Your task to perform on an android device: Search for a 24-inch cordless drill. Image 0: 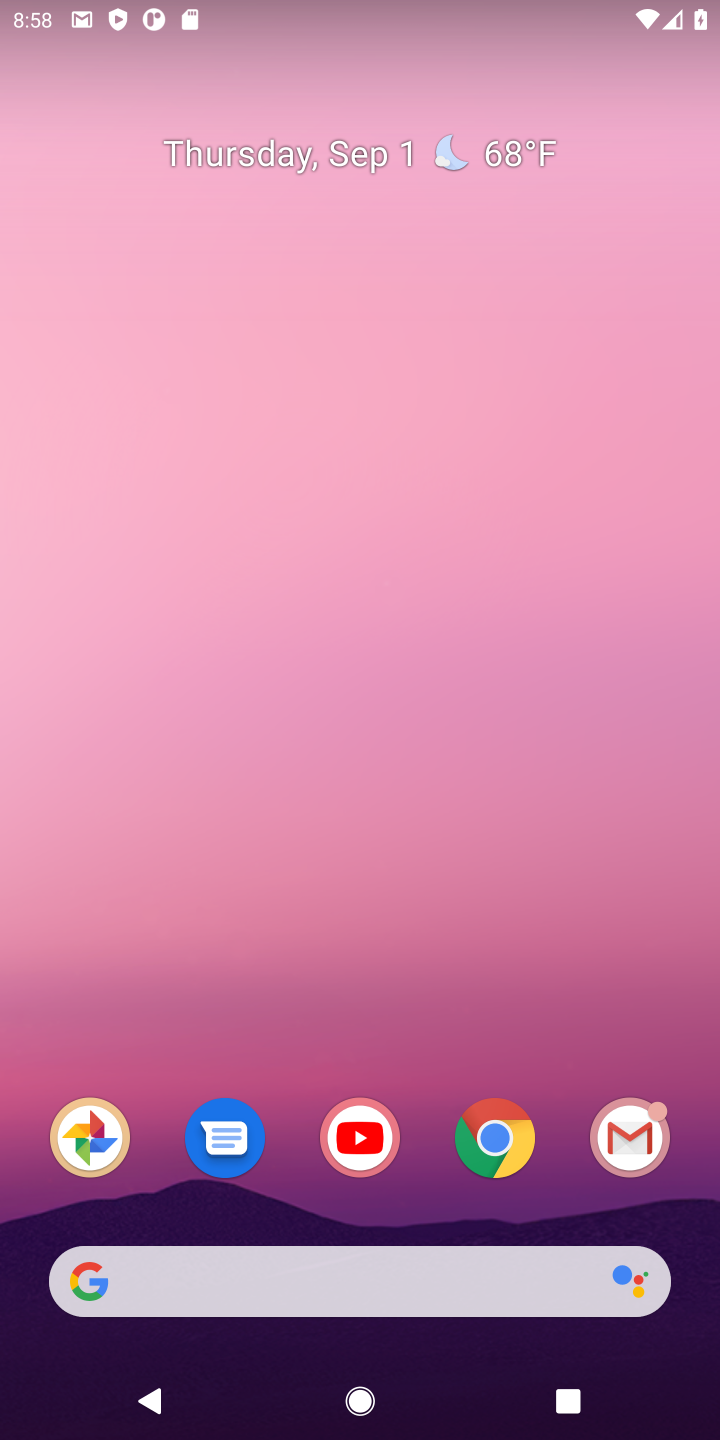
Step 0: click (498, 1178)
Your task to perform on an android device: Search for a 24-inch cordless drill. Image 1: 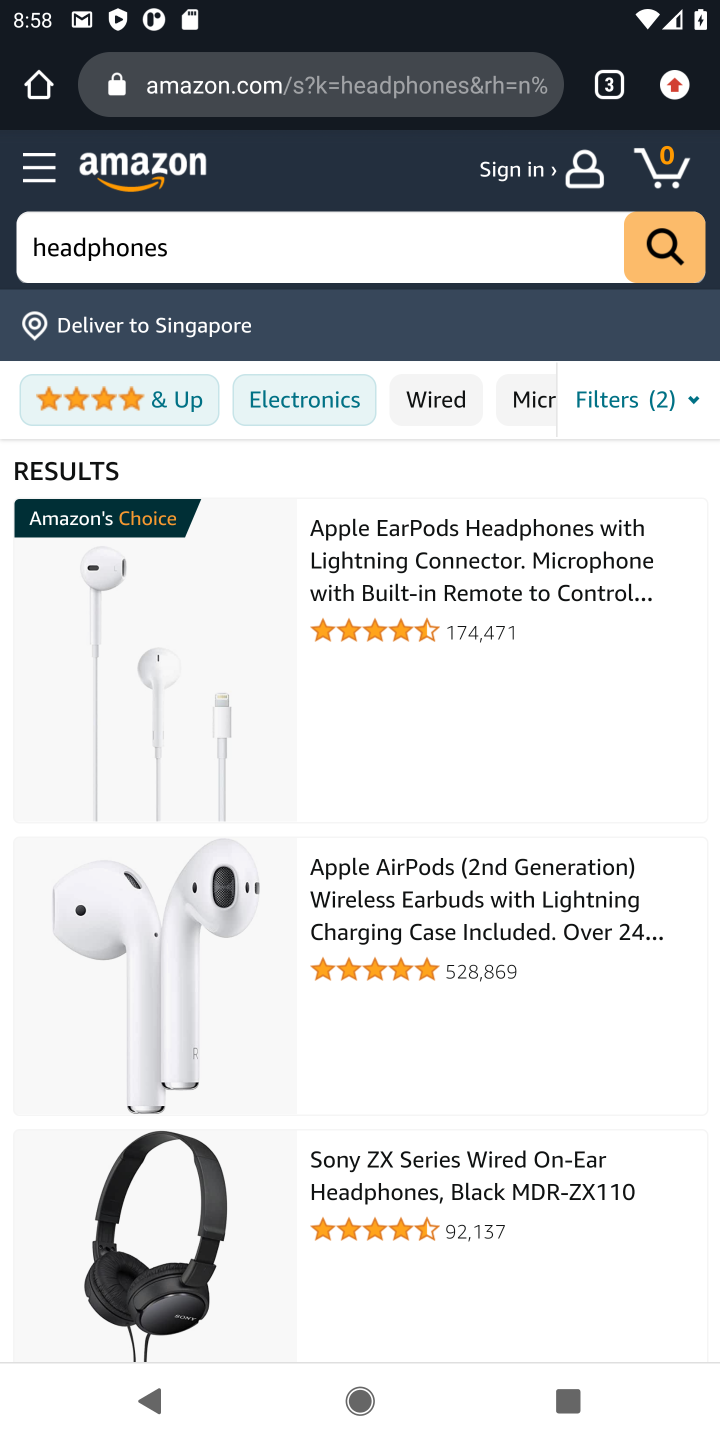
Step 1: click (608, 83)
Your task to perform on an android device: Search for a 24-inch cordless drill. Image 2: 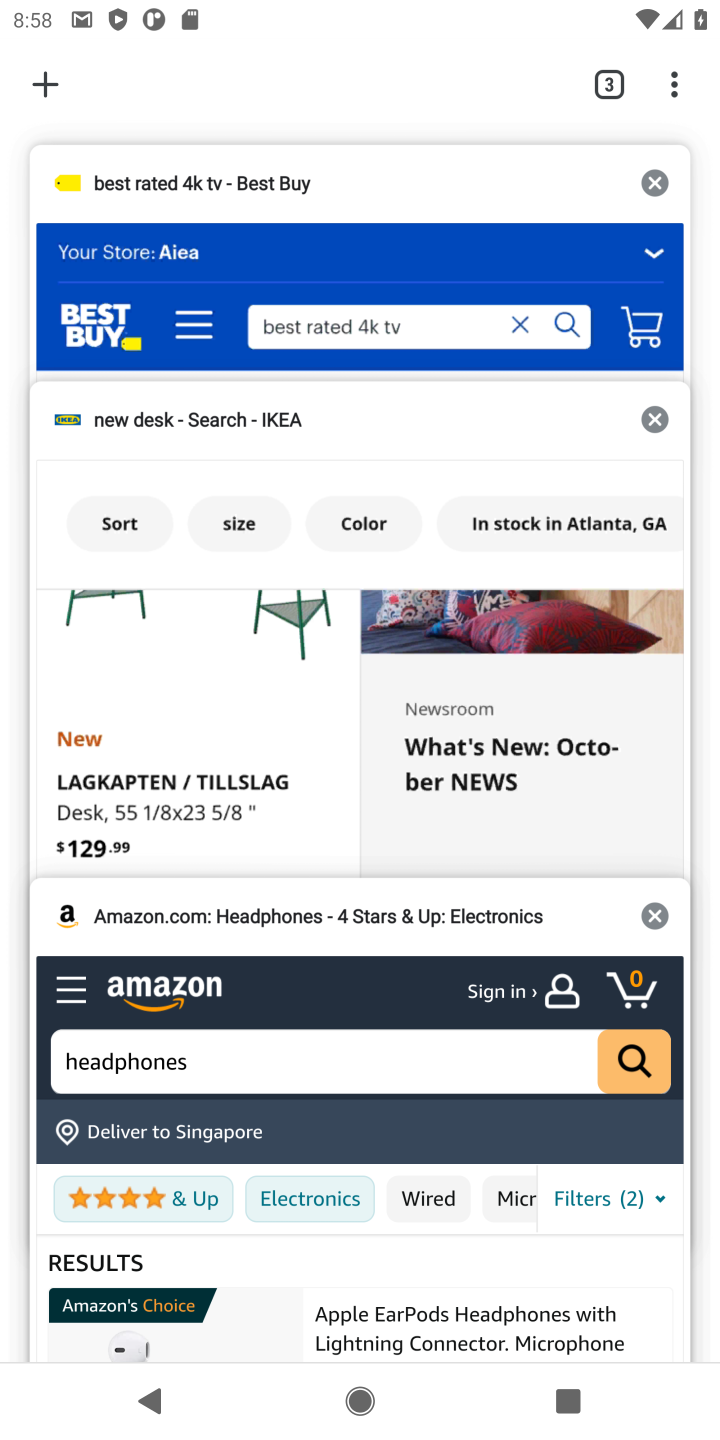
Step 2: click (38, 66)
Your task to perform on an android device: Search for a 24-inch cordless drill. Image 3: 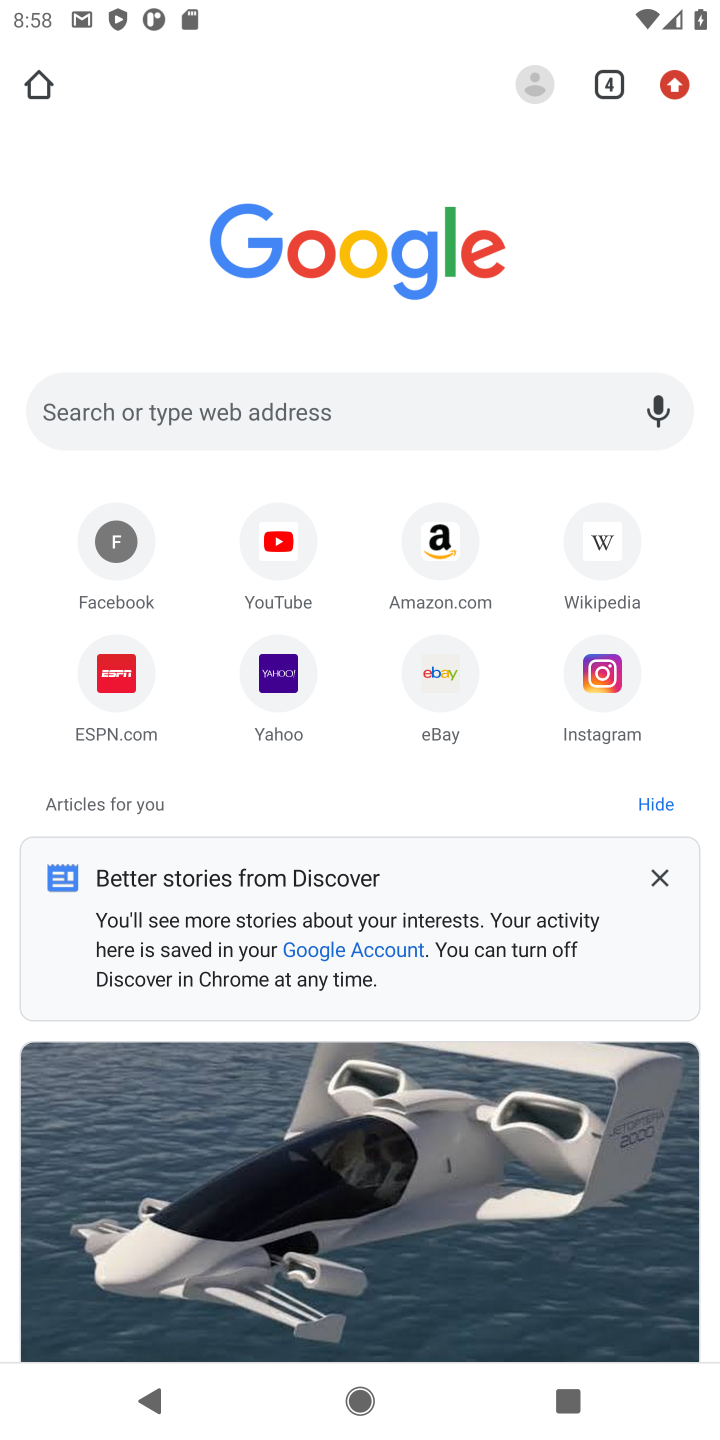
Step 3: click (353, 411)
Your task to perform on an android device: Search for a 24-inch cordless drill. Image 4: 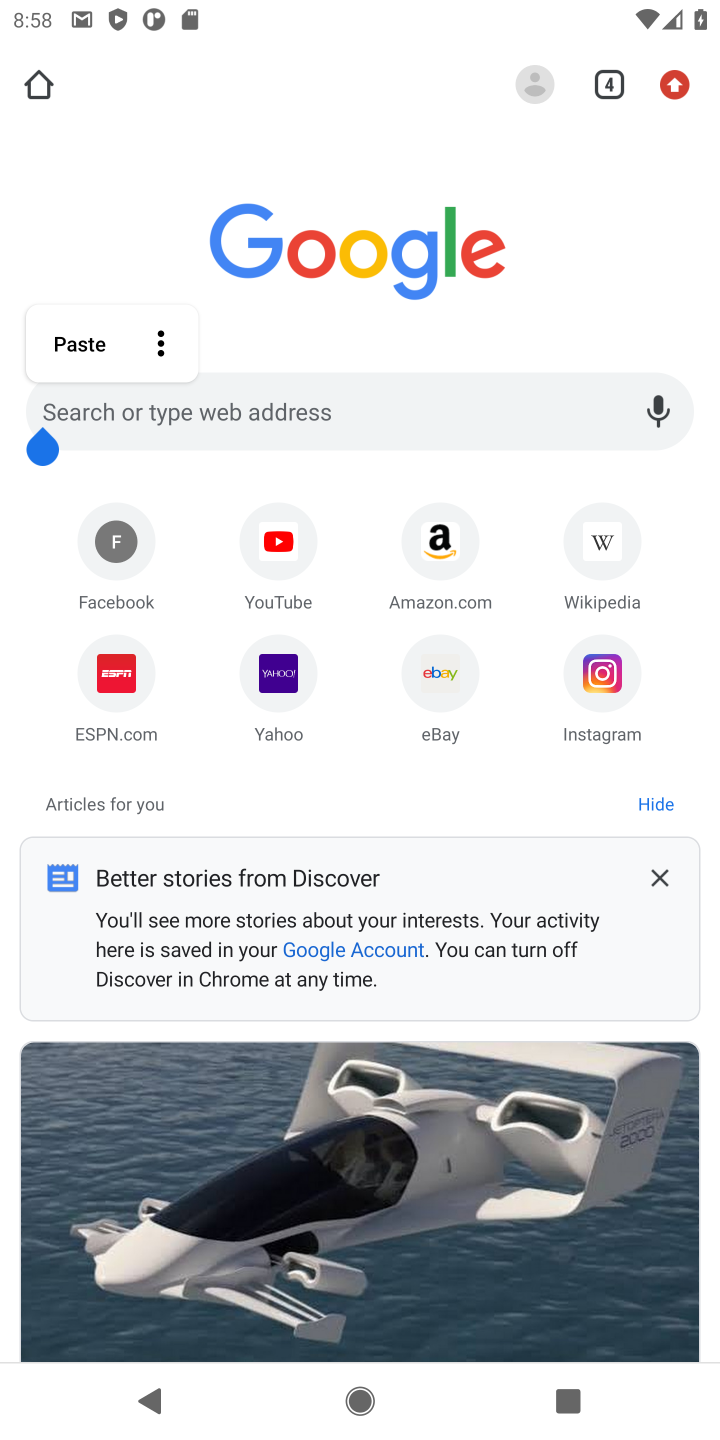
Step 4: click (75, 335)
Your task to perform on an android device: Search for a 24-inch cordless drill. Image 5: 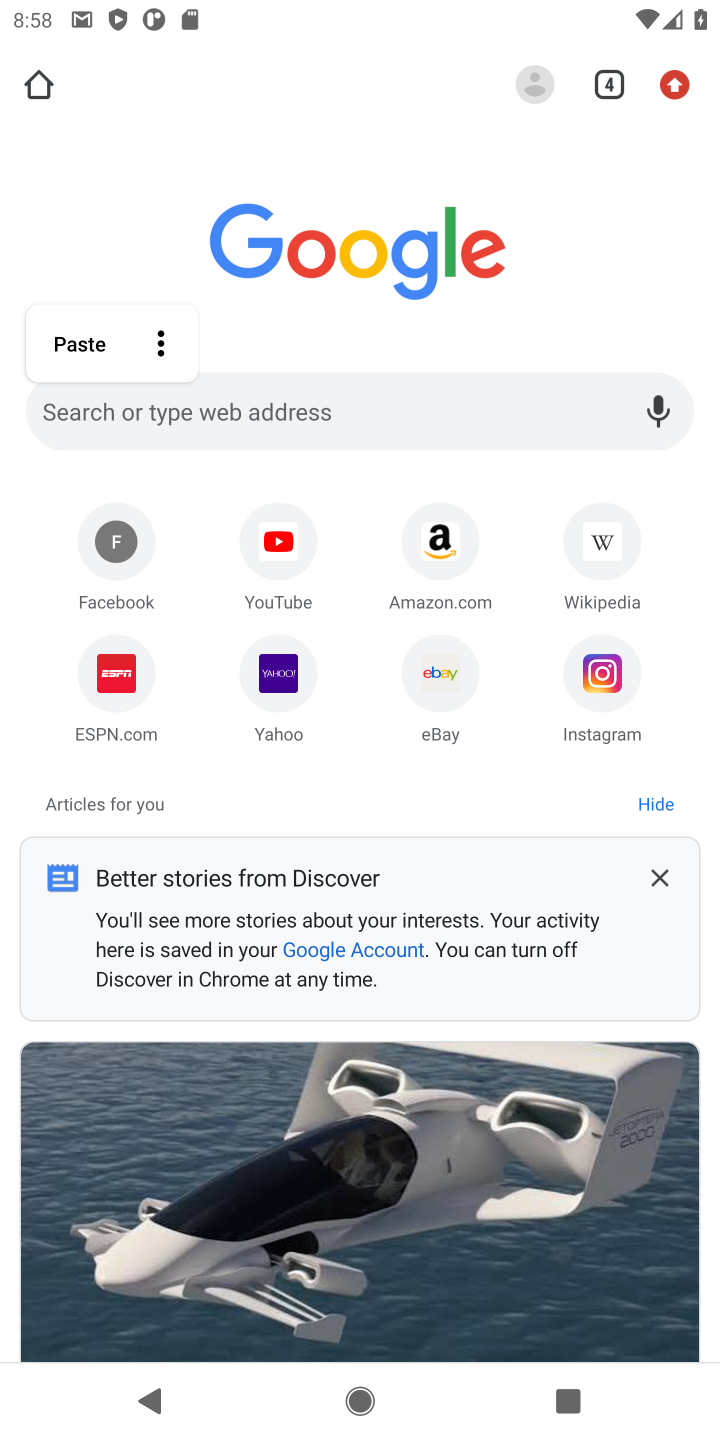
Step 5: click (90, 338)
Your task to perform on an android device: Search for a 24-inch cordless drill. Image 6: 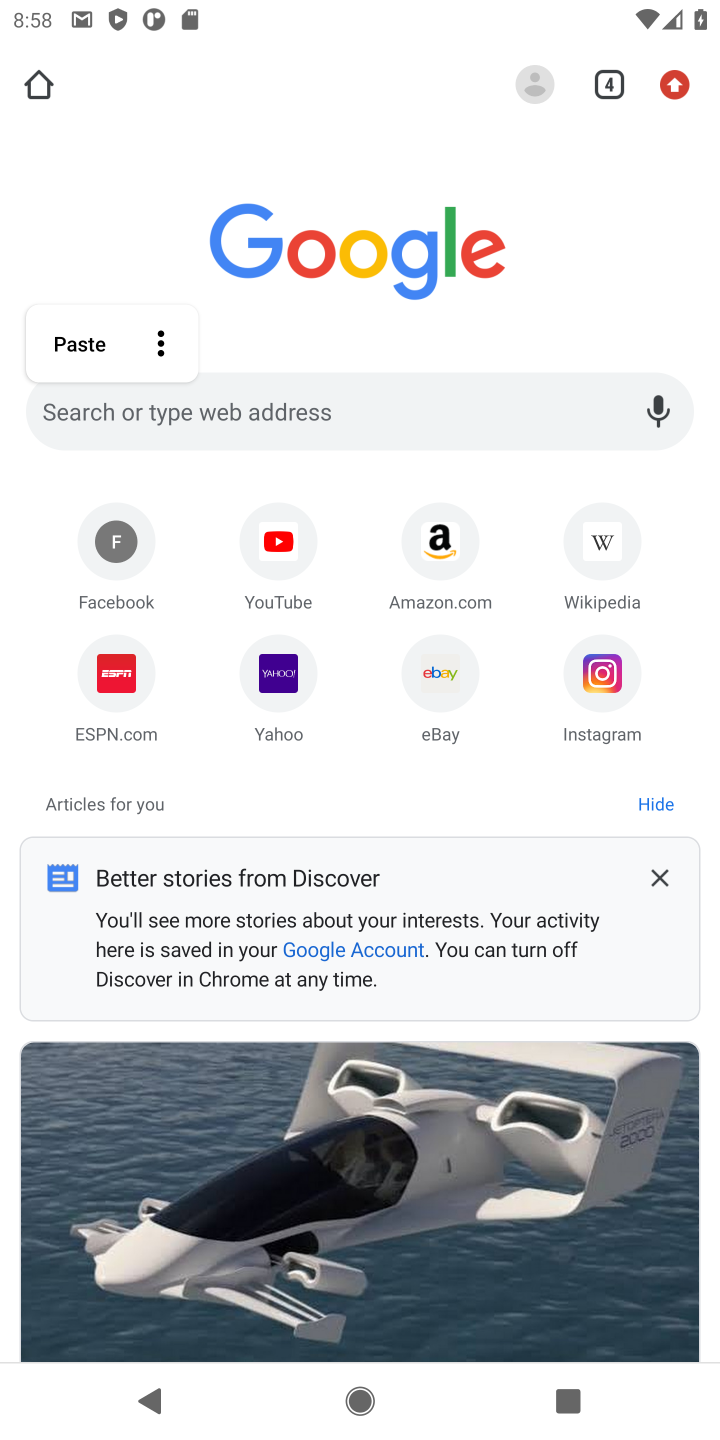
Step 6: click (439, 397)
Your task to perform on an android device: Search for a 24-inch cordless drill. Image 7: 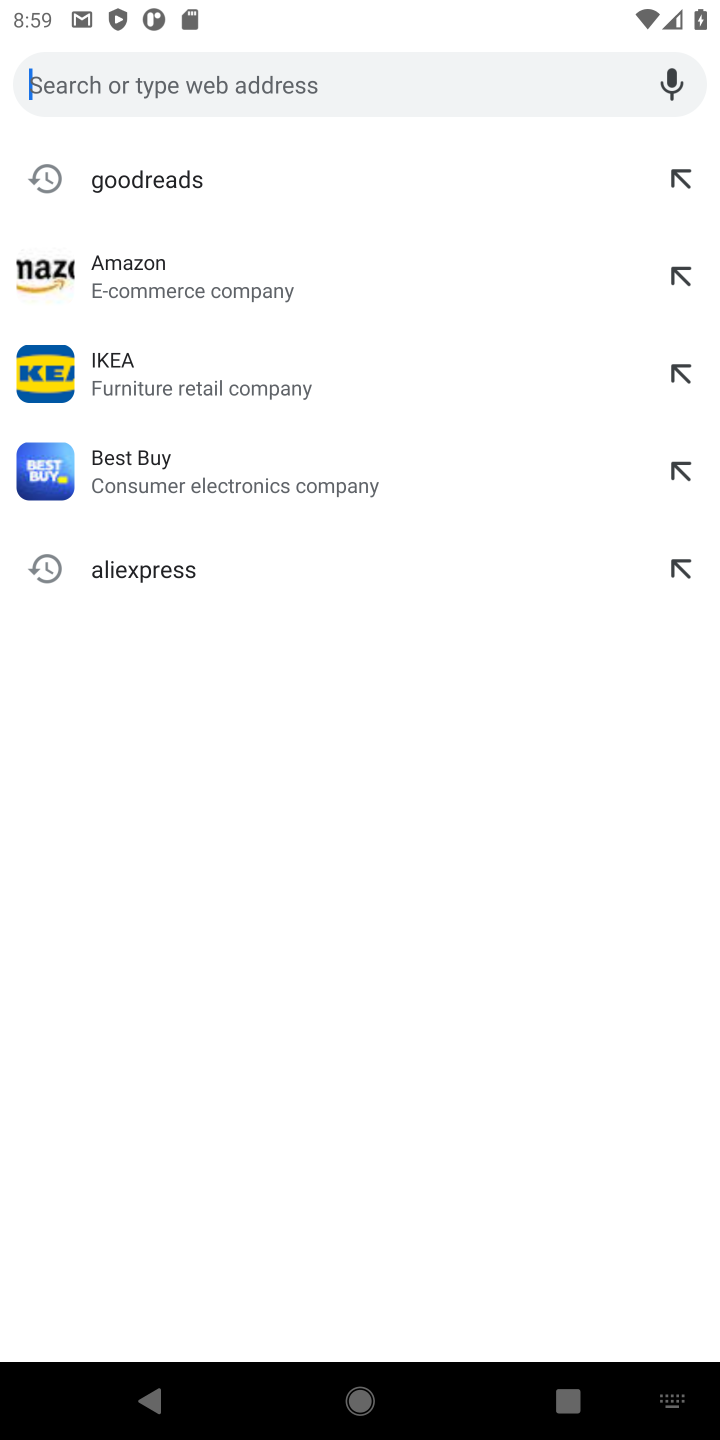
Step 7: type "24-inch cordless drill"
Your task to perform on an android device: Search for a 24-inch cordless drill. Image 8: 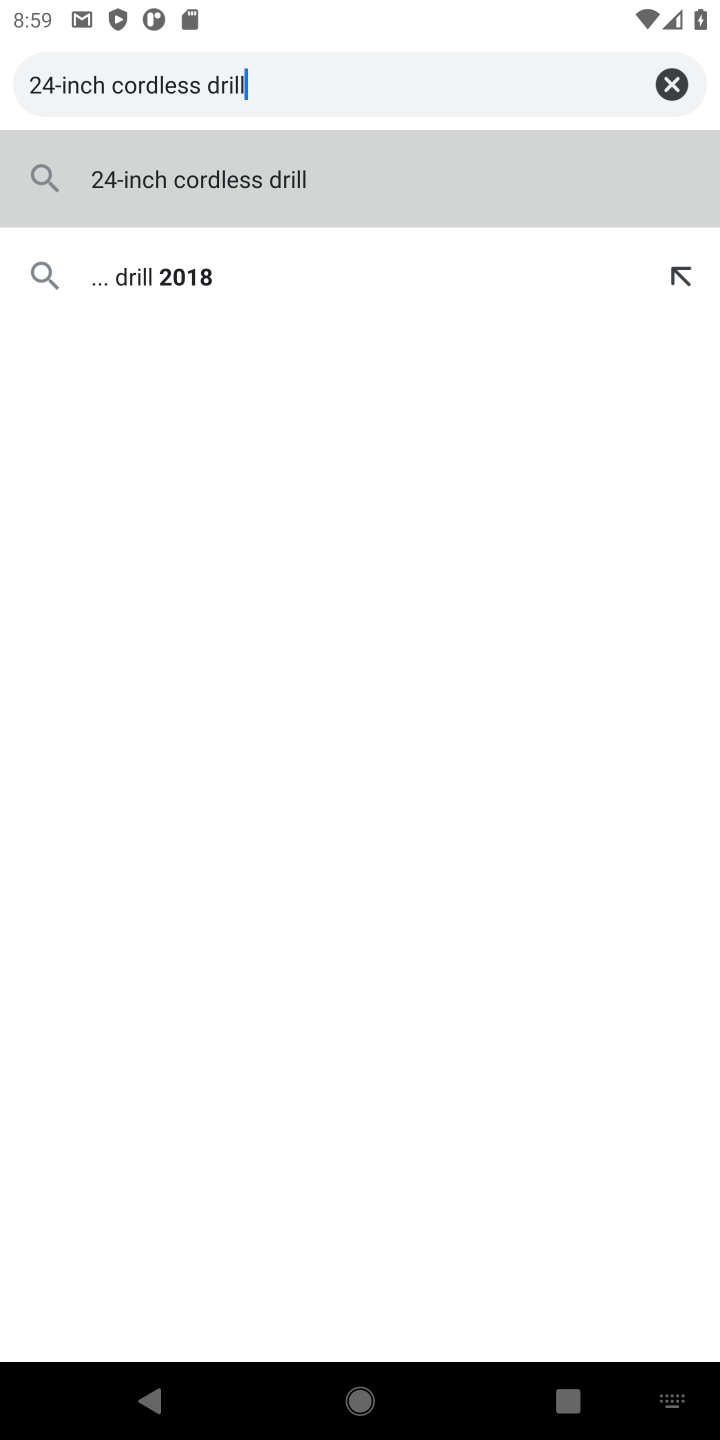
Step 8: click (246, 183)
Your task to perform on an android device: Search for a 24-inch cordless drill. Image 9: 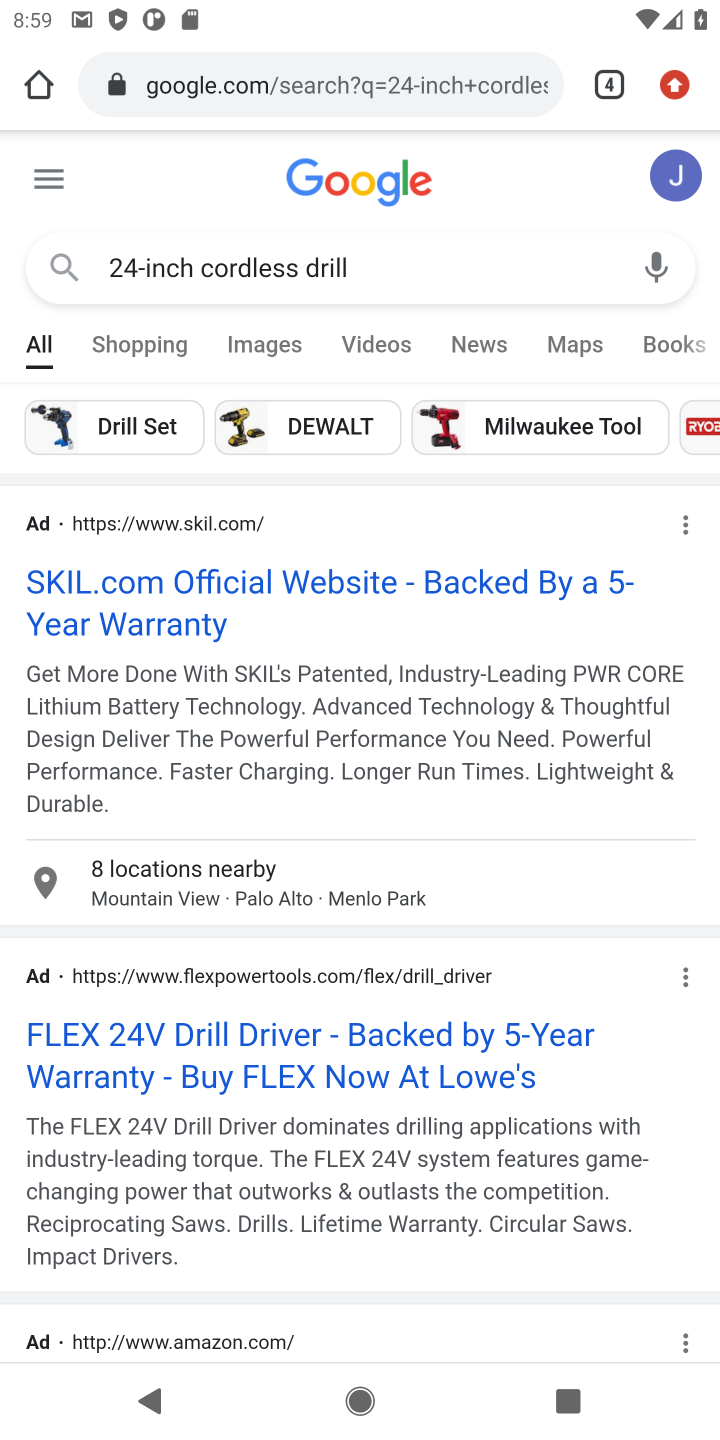
Step 9: drag from (307, 1203) to (243, 598)
Your task to perform on an android device: Search for a 24-inch cordless drill. Image 10: 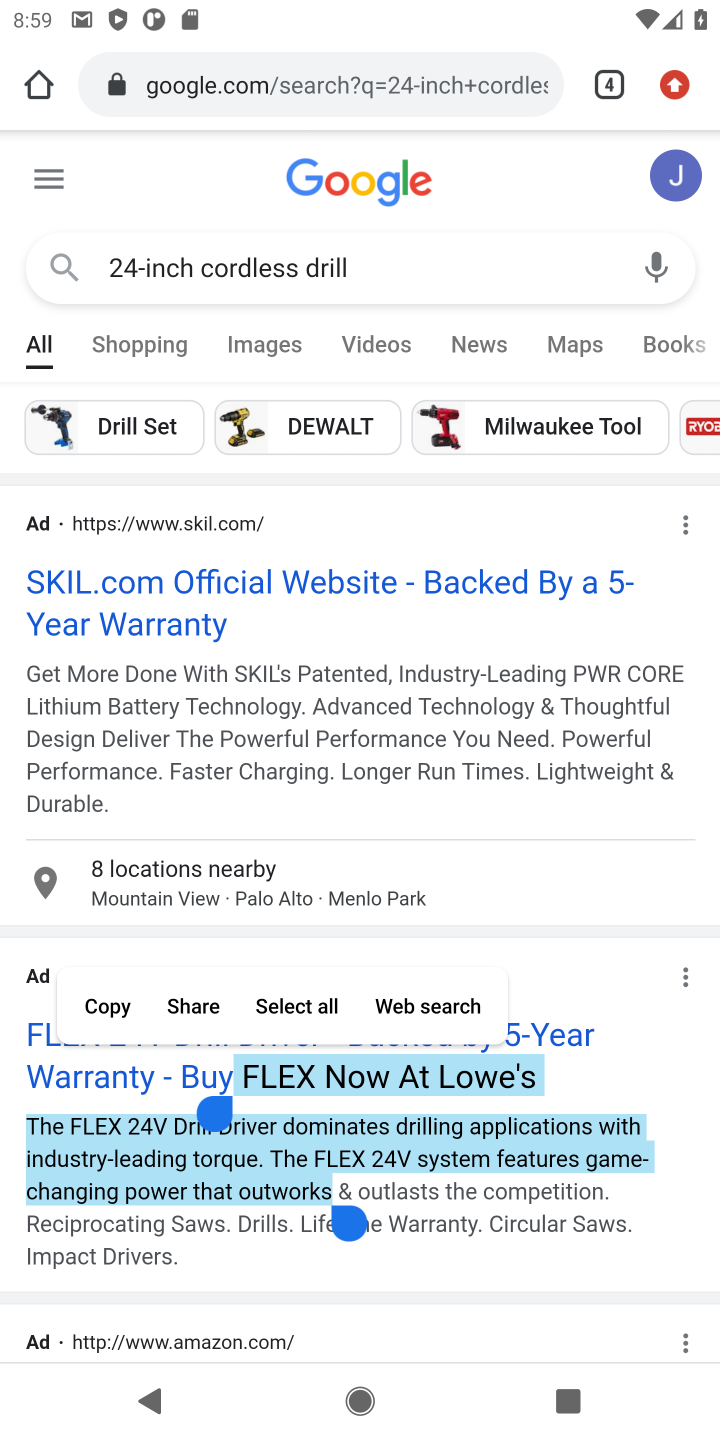
Step 10: click (615, 1176)
Your task to perform on an android device: Search for a 24-inch cordless drill. Image 11: 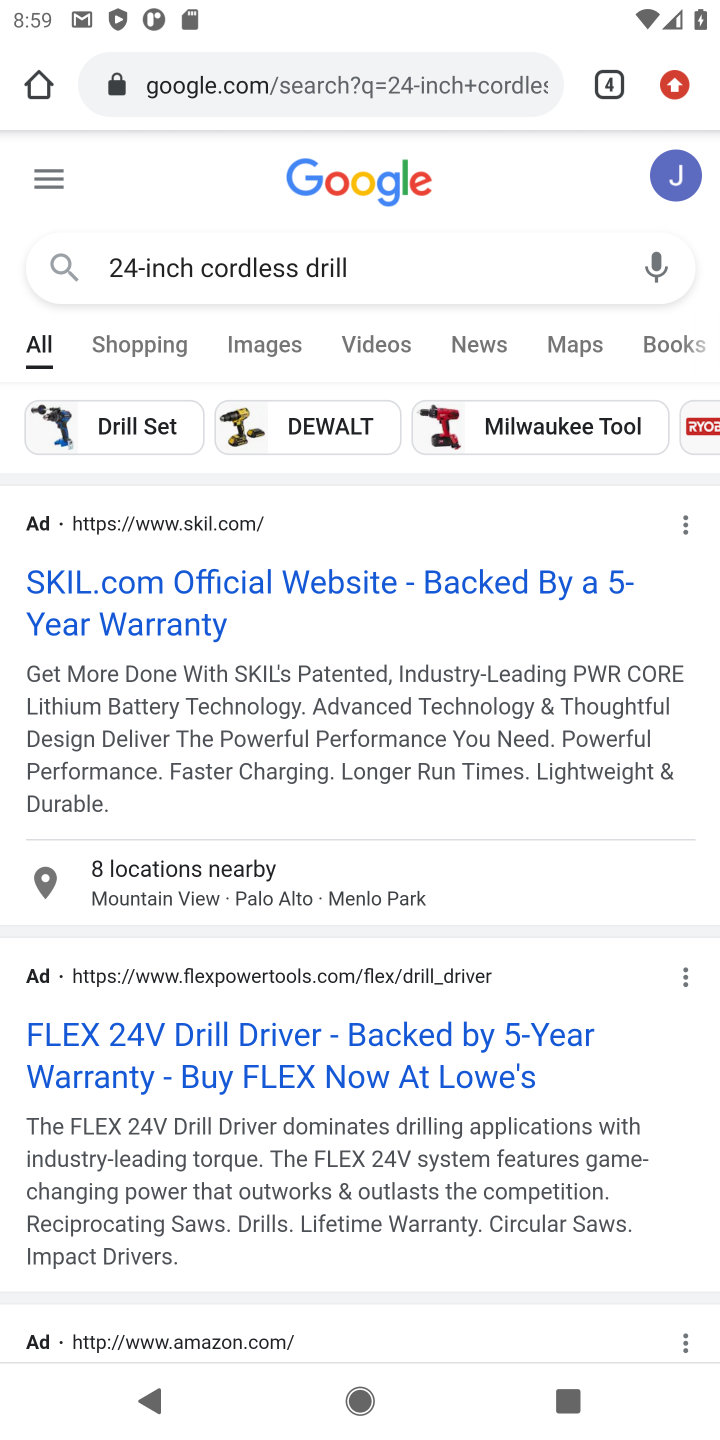
Step 11: drag from (649, 1209) to (550, 316)
Your task to perform on an android device: Search for a 24-inch cordless drill. Image 12: 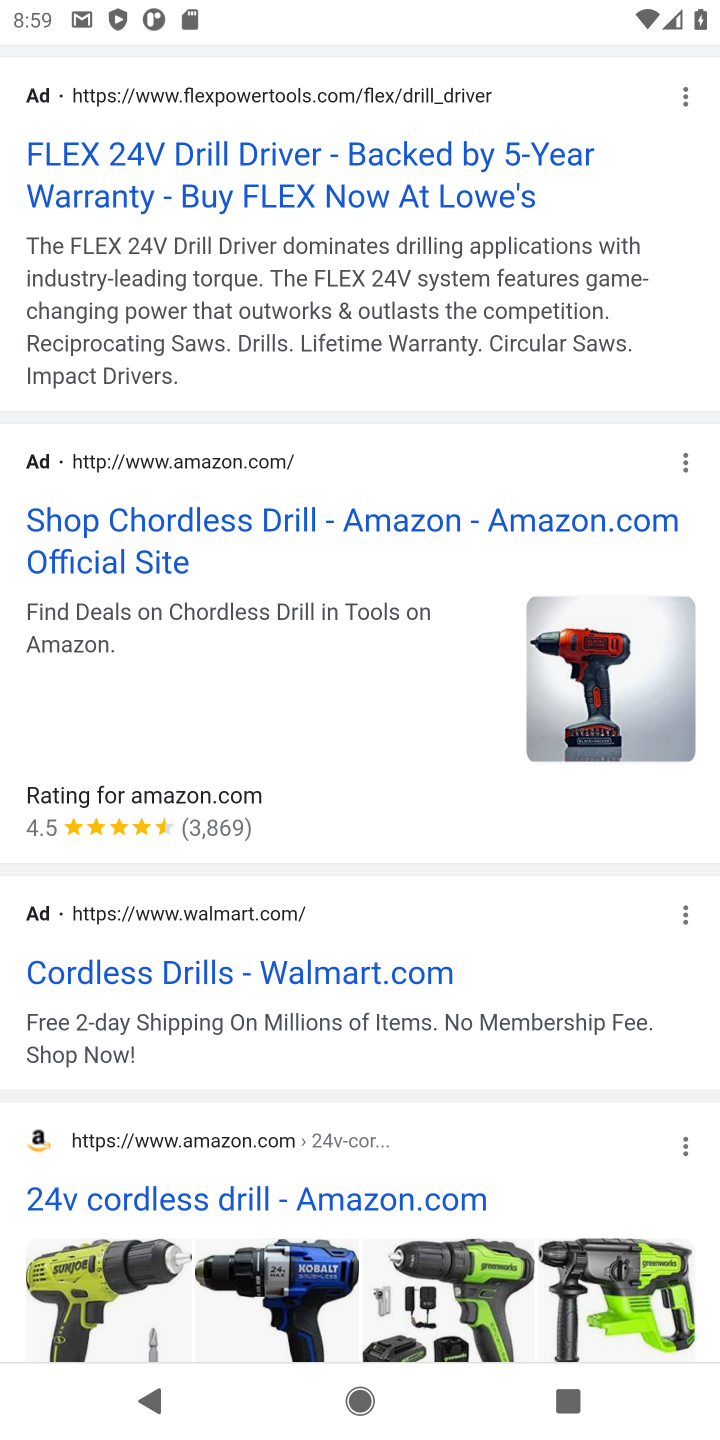
Step 12: click (374, 522)
Your task to perform on an android device: Search for a 24-inch cordless drill. Image 13: 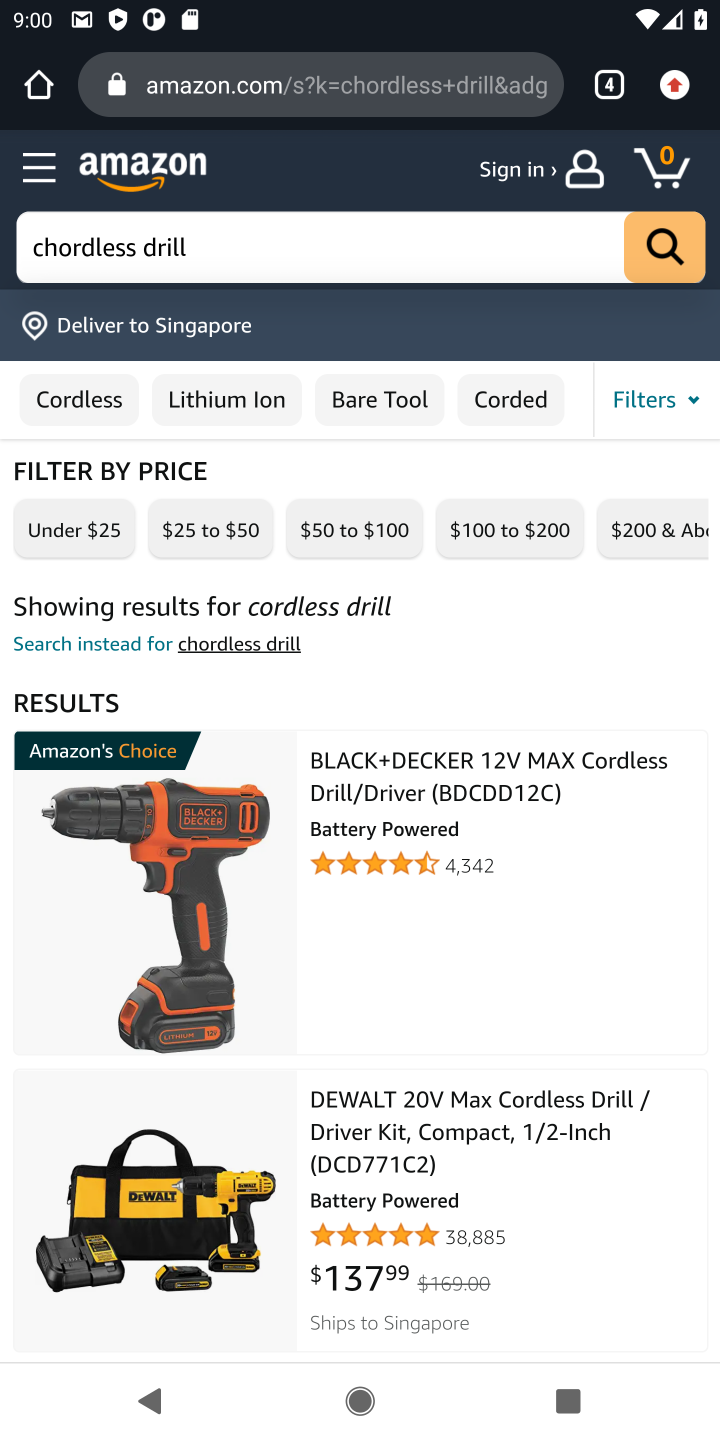
Step 13: drag from (513, 1013) to (478, 936)
Your task to perform on an android device: Search for a 24-inch cordless drill. Image 14: 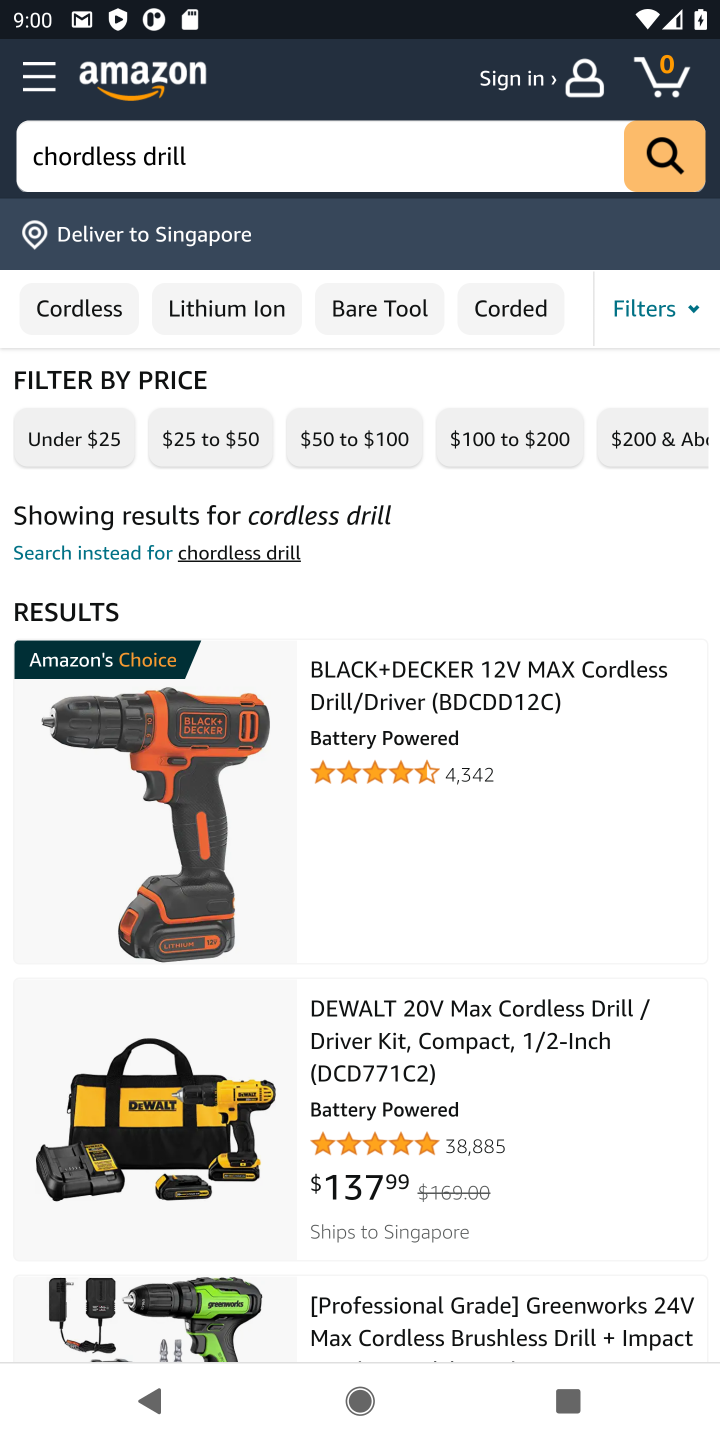
Step 14: click (662, 347)
Your task to perform on an android device: Search for a 24-inch cordless drill. Image 15: 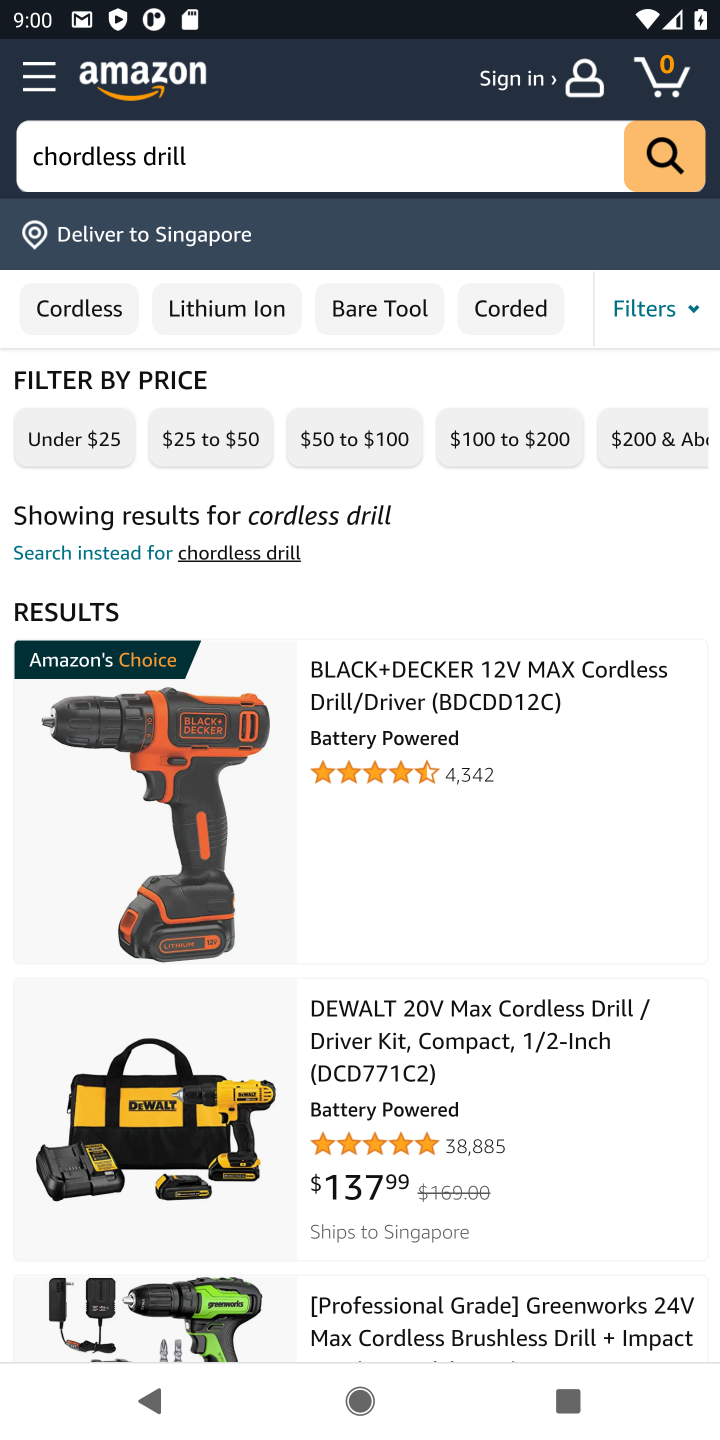
Step 15: click (654, 311)
Your task to perform on an android device: Search for a 24-inch cordless drill. Image 16: 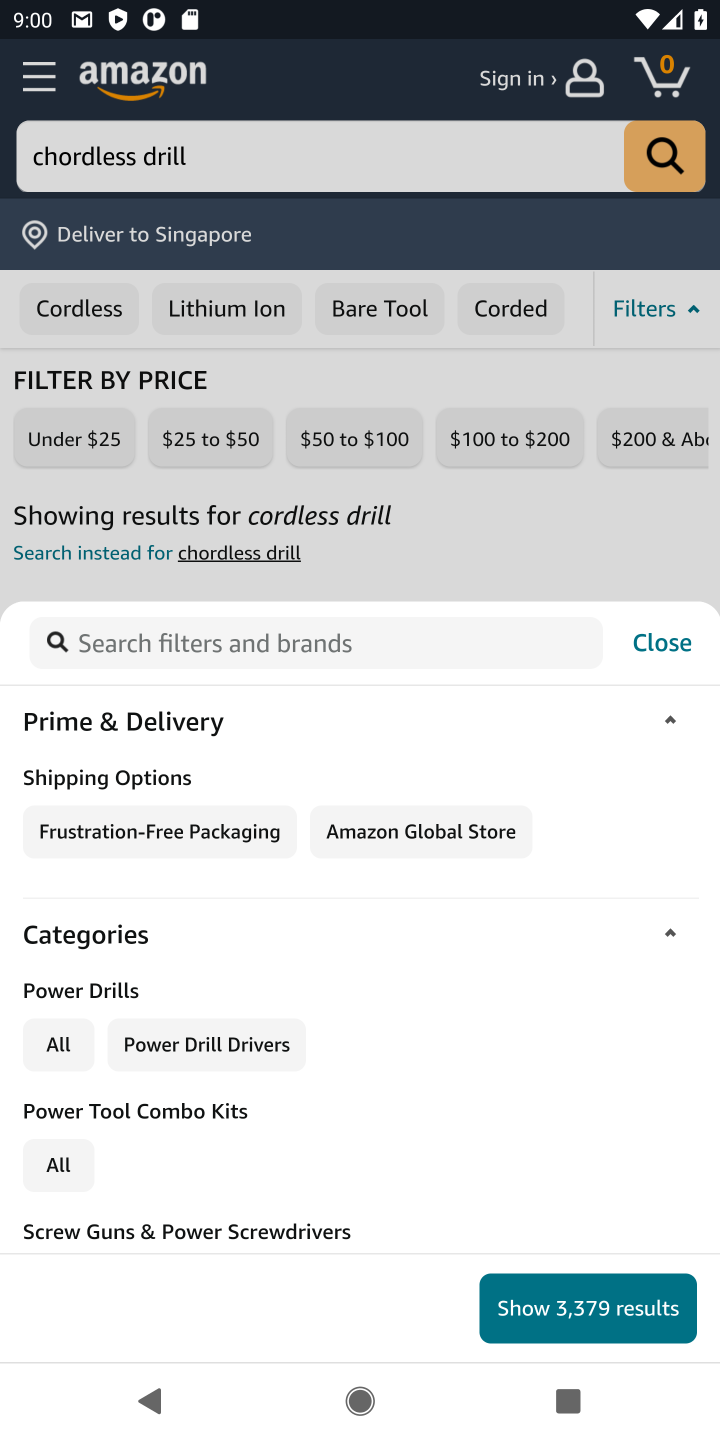
Step 16: drag from (495, 1080) to (325, 645)
Your task to perform on an android device: Search for a 24-inch cordless drill. Image 17: 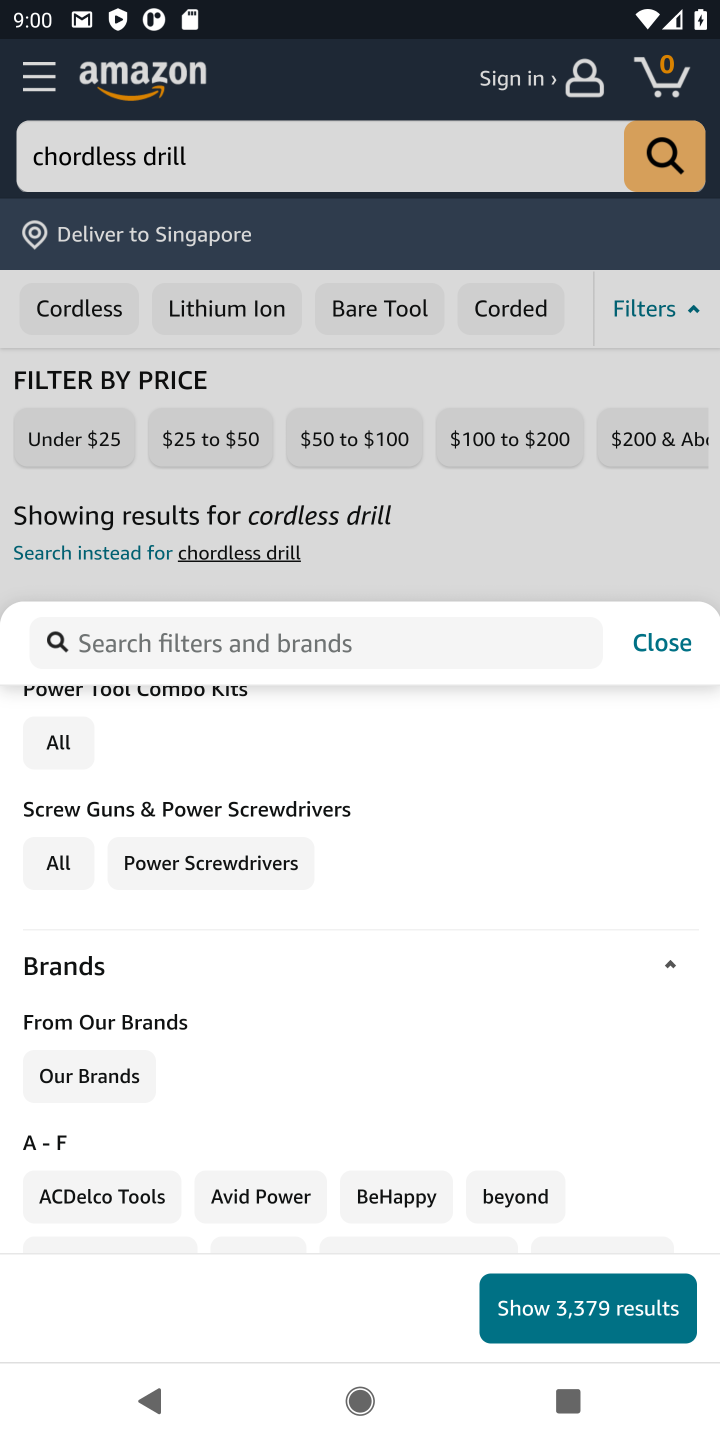
Step 17: drag from (401, 1071) to (345, 411)
Your task to perform on an android device: Search for a 24-inch cordless drill. Image 18: 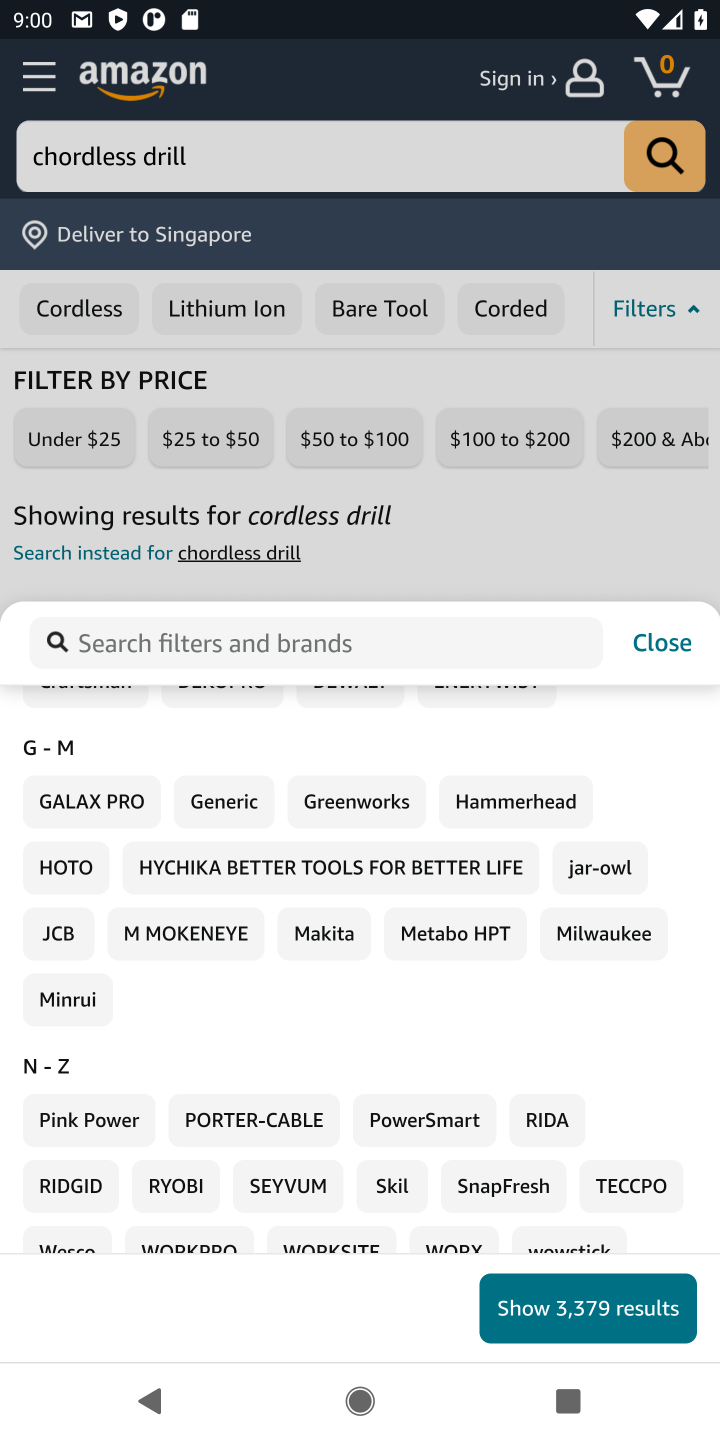
Step 18: drag from (654, 1125) to (579, 816)
Your task to perform on an android device: Search for a 24-inch cordless drill. Image 19: 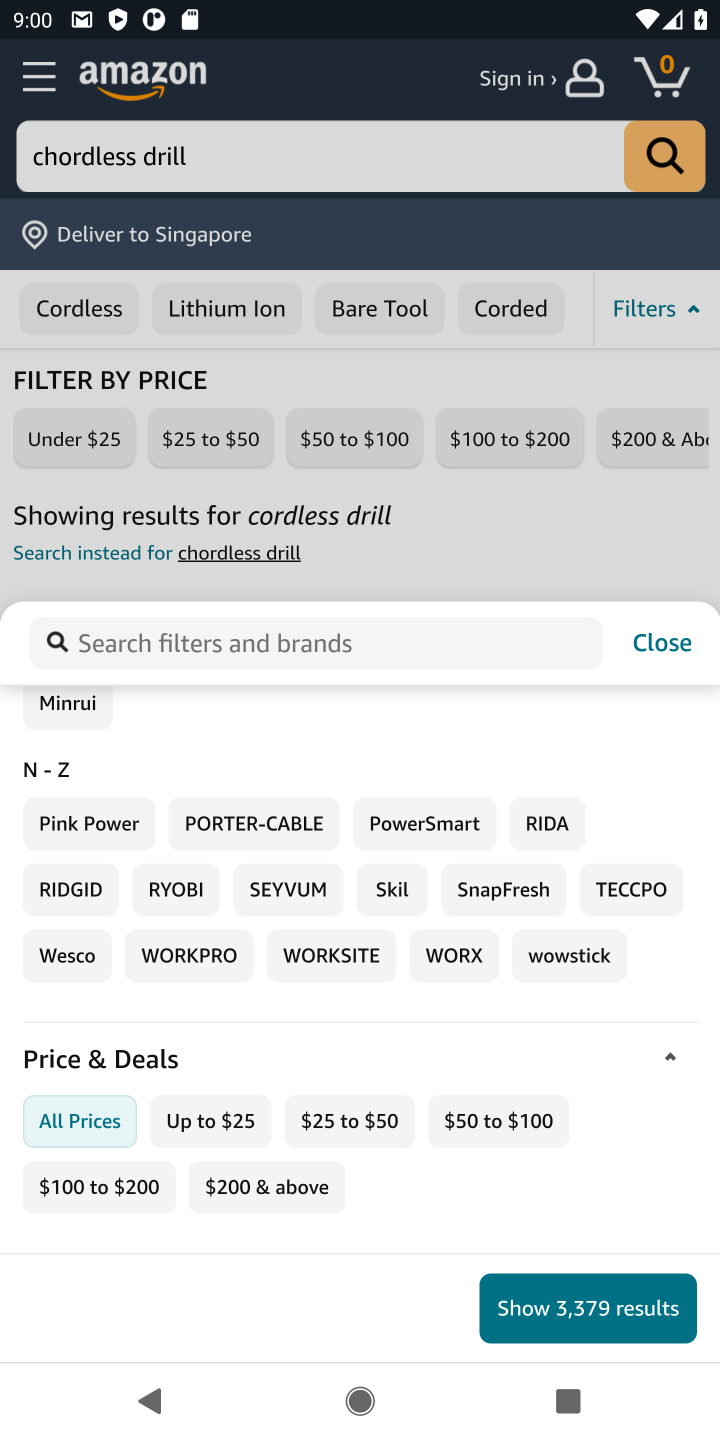
Step 19: drag from (630, 1176) to (534, 788)
Your task to perform on an android device: Search for a 24-inch cordless drill. Image 20: 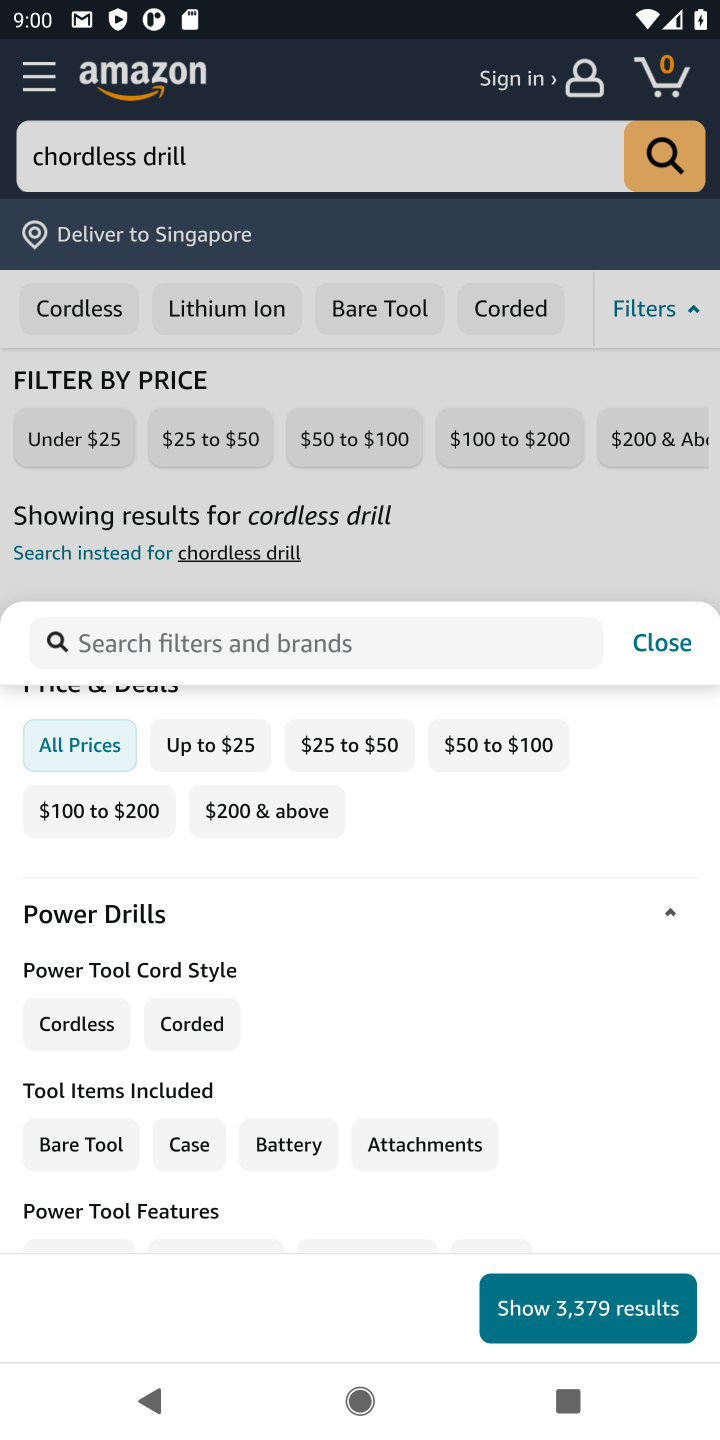
Step 20: drag from (573, 1172) to (476, 618)
Your task to perform on an android device: Search for a 24-inch cordless drill. Image 21: 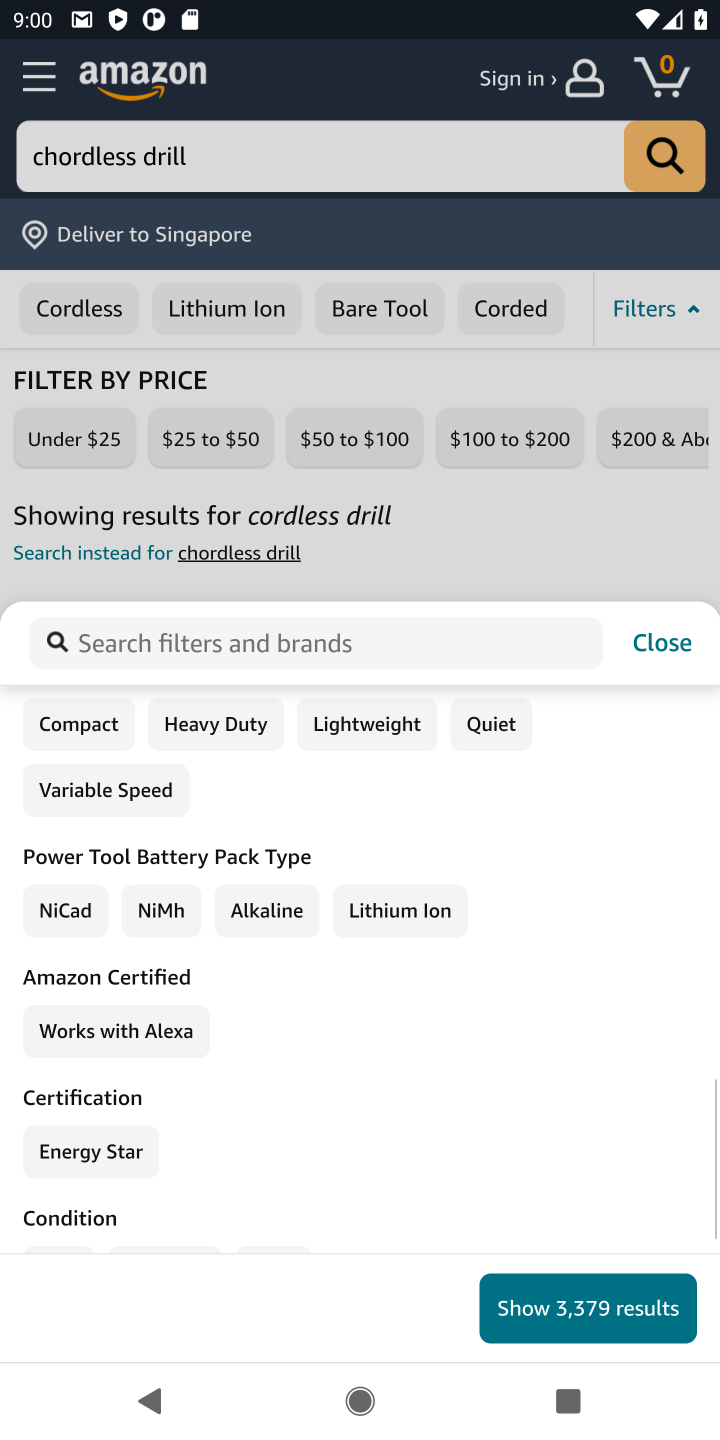
Step 21: drag from (482, 1181) to (381, 682)
Your task to perform on an android device: Search for a 24-inch cordless drill. Image 22: 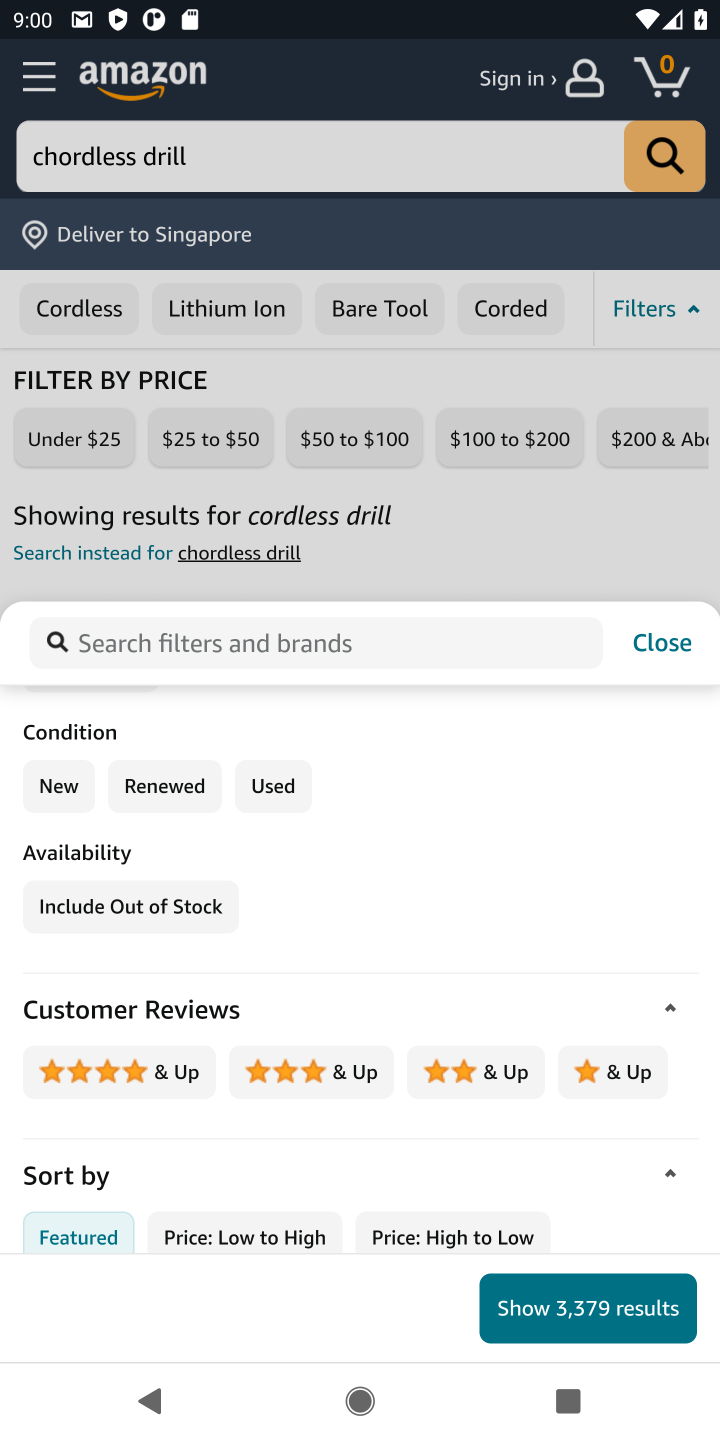
Step 22: click (665, 639)
Your task to perform on an android device: Search for a 24-inch cordless drill. Image 23: 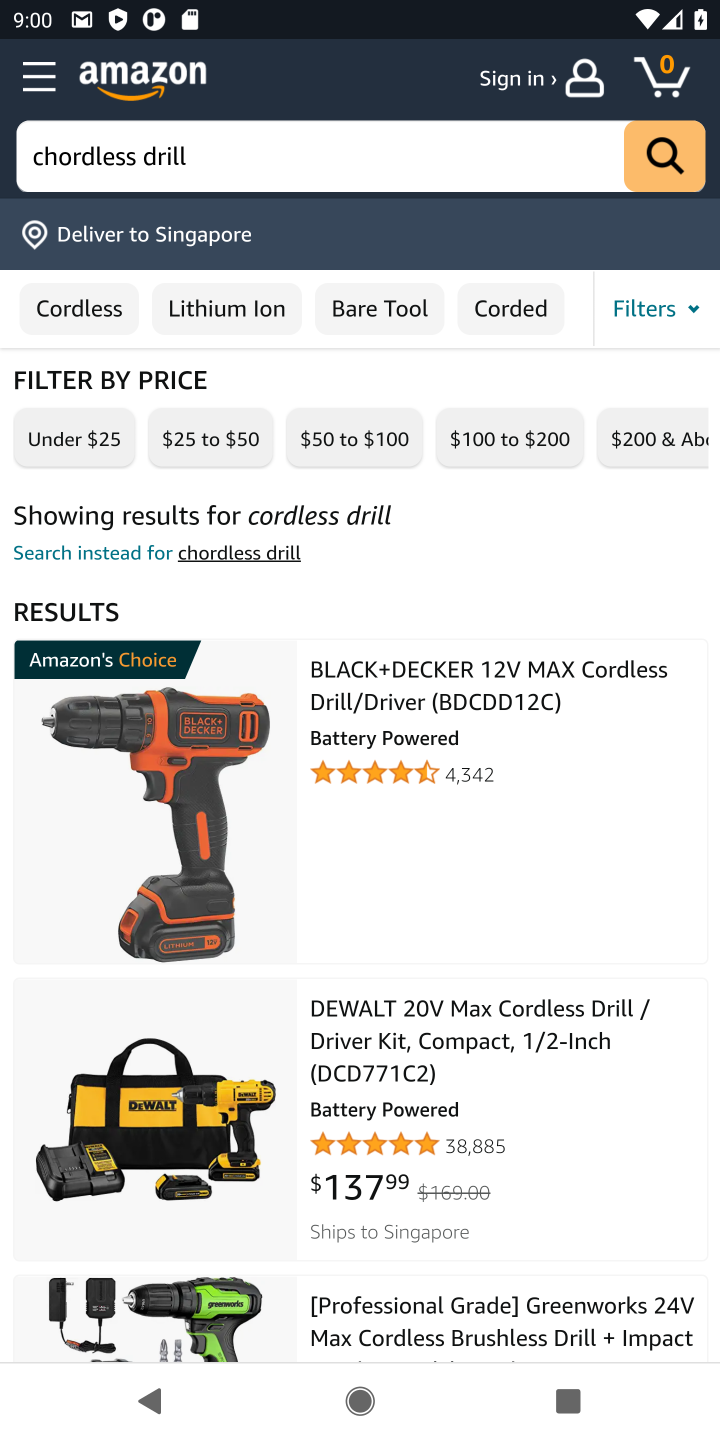
Step 23: task complete